Your task to perform on an android device: toggle airplane mode Image 0: 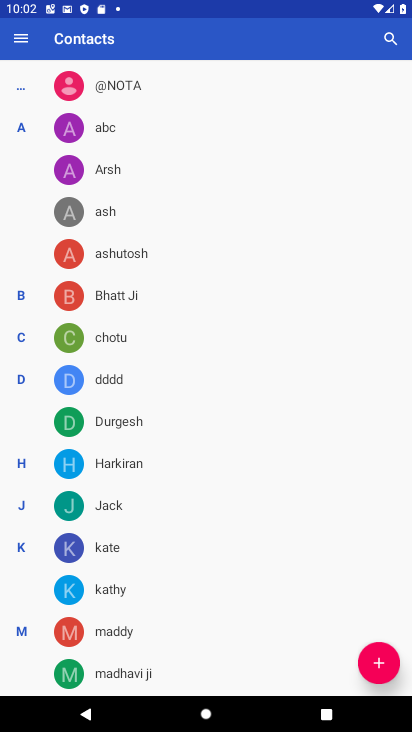
Step 0: press back button
Your task to perform on an android device: toggle airplane mode Image 1: 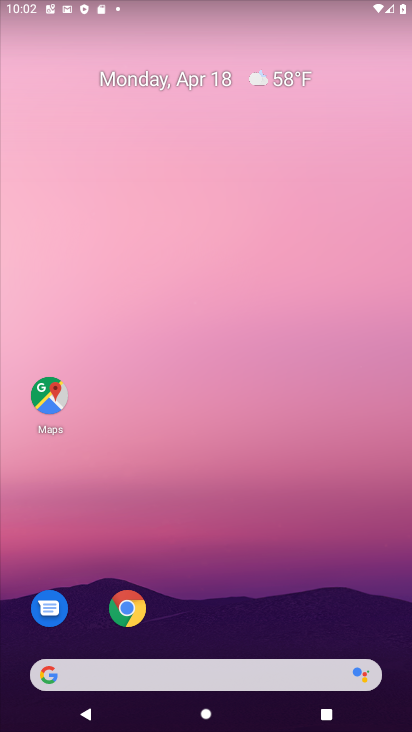
Step 1: drag from (358, 630) to (328, 174)
Your task to perform on an android device: toggle airplane mode Image 2: 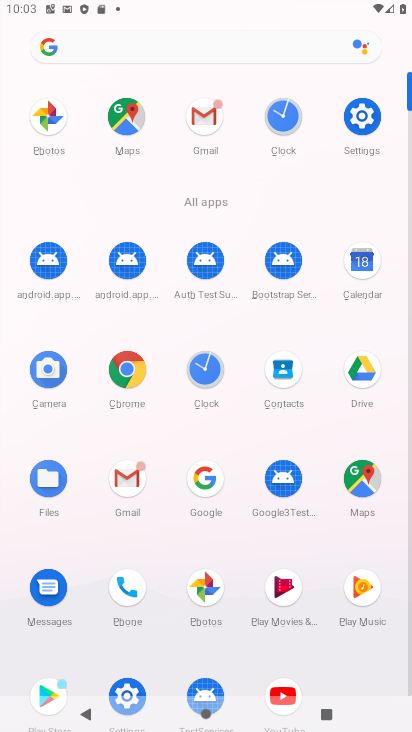
Step 2: click (352, 136)
Your task to perform on an android device: toggle airplane mode Image 3: 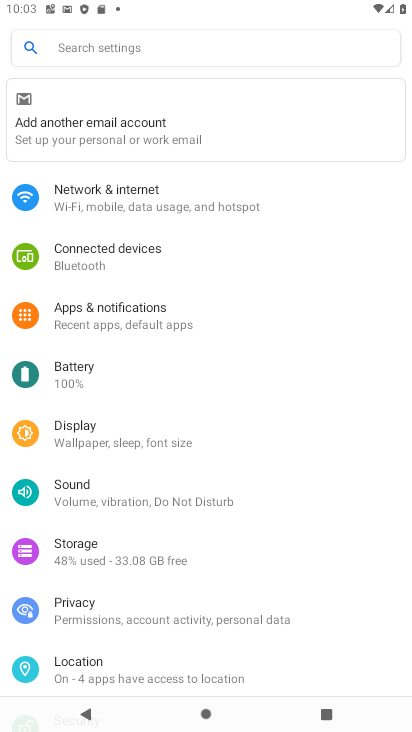
Step 3: click (293, 196)
Your task to perform on an android device: toggle airplane mode Image 4: 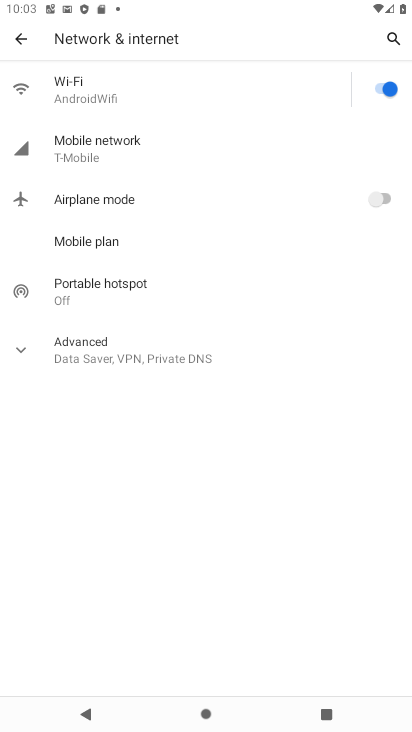
Step 4: click (383, 203)
Your task to perform on an android device: toggle airplane mode Image 5: 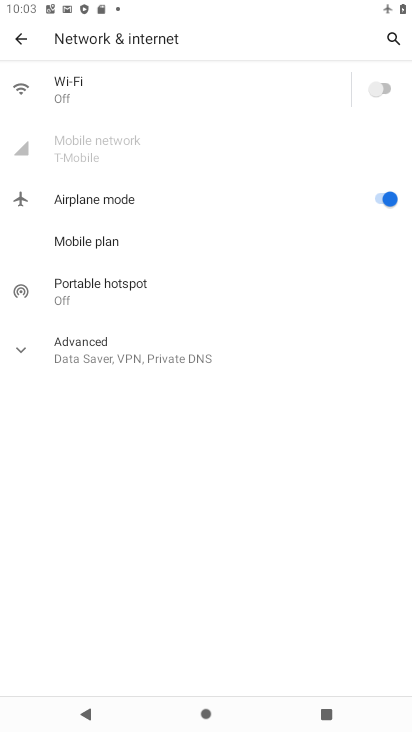
Step 5: task complete